Your task to perform on an android device: Show me productivity apps on the Play Store Image 0: 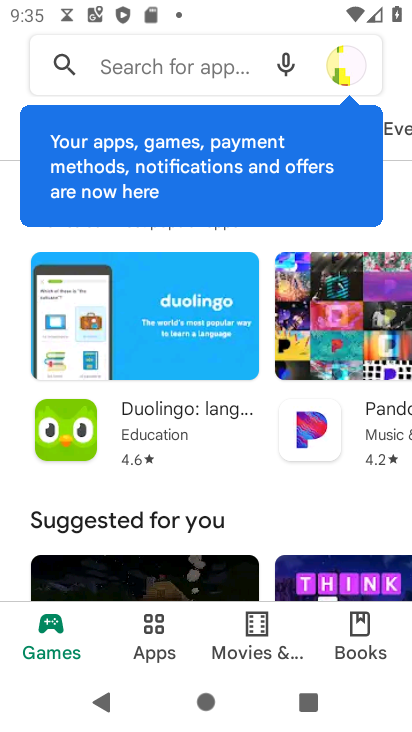
Step 0: press home button
Your task to perform on an android device: Show me productivity apps on the Play Store Image 1: 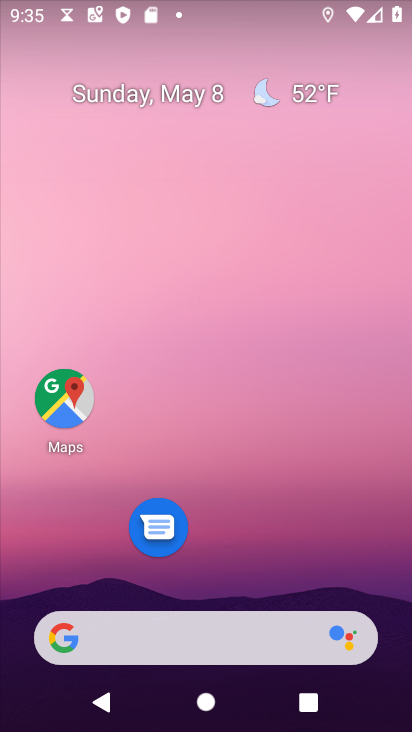
Step 1: drag from (229, 524) to (213, 45)
Your task to perform on an android device: Show me productivity apps on the Play Store Image 2: 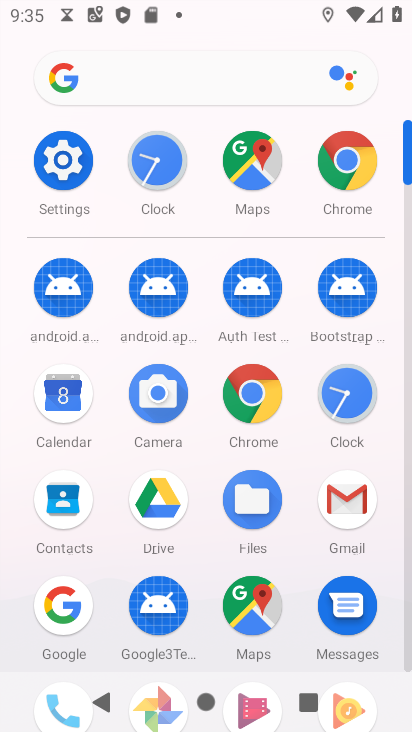
Step 2: drag from (206, 537) to (200, 286)
Your task to perform on an android device: Show me productivity apps on the Play Store Image 3: 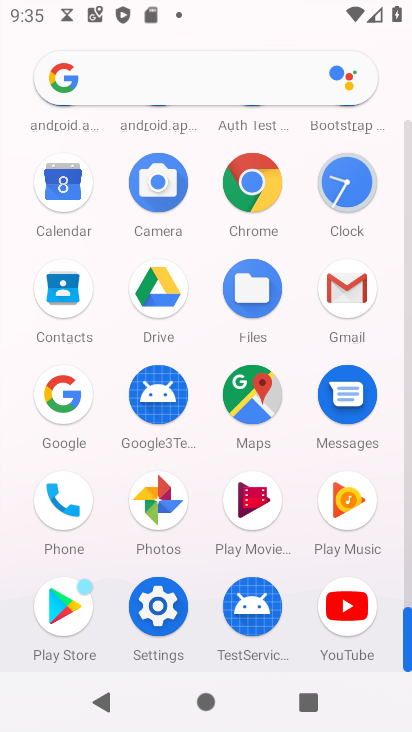
Step 3: click (67, 603)
Your task to perform on an android device: Show me productivity apps on the Play Store Image 4: 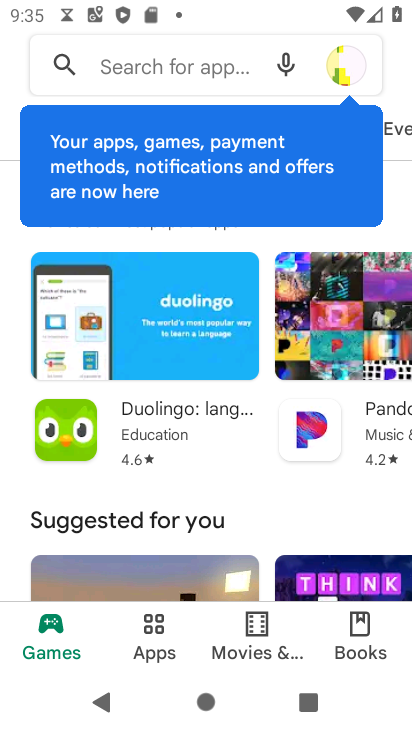
Step 4: click (147, 622)
Your task to perform on an android device: Show me productivity apps on the Play Store Image 5: 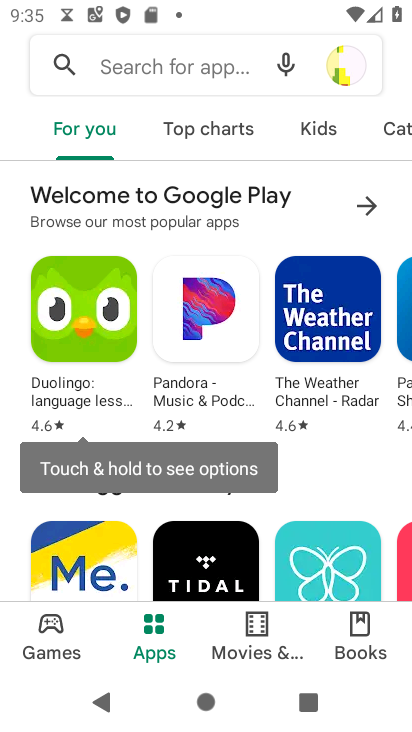
Step 5: drag from (346, 126) to (171, 109)
Your task to perform on an android device: Show me productivity apps on the Play Store Image 6: 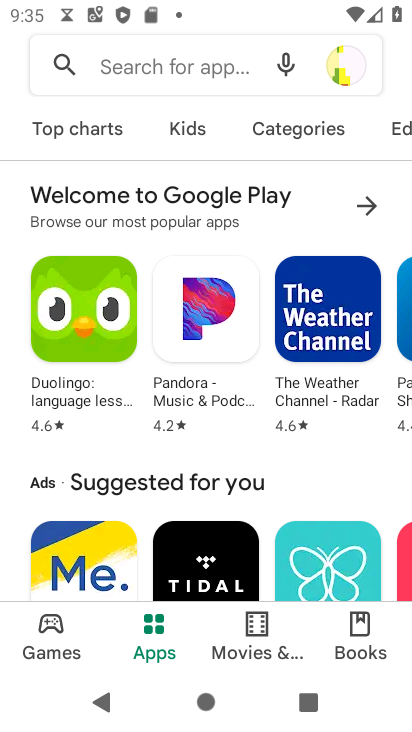
Step 6: click (307, 132)
Your task to perform on an android device: Show me productivity apps on the Play Store Image 7: 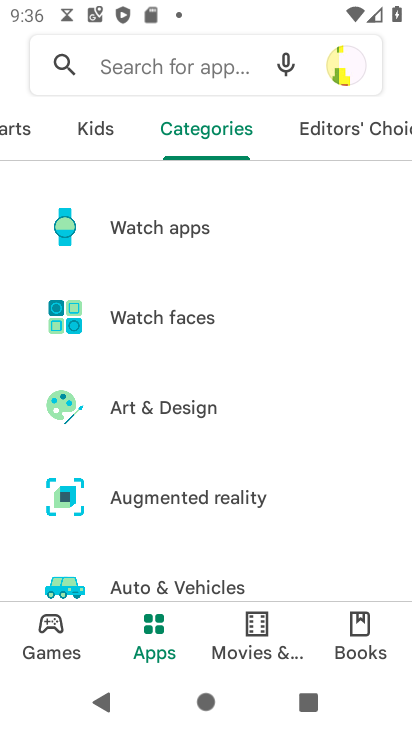
Step 7: drag from (186, 458) to (200, 324)
Your task to perform on an android device: Show me productivity apps on the Play Store Image 8: 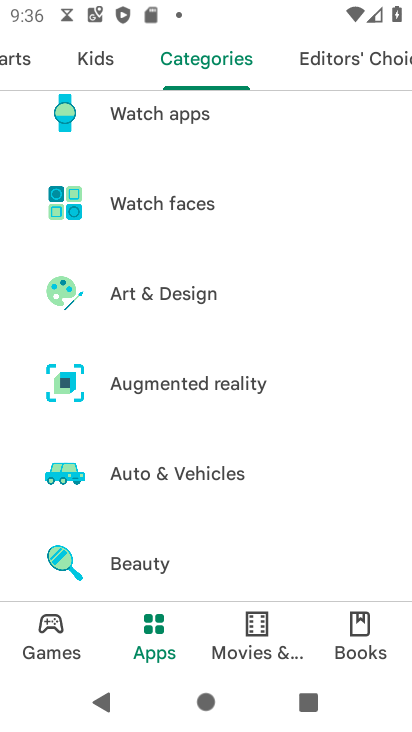
Step 8: drag from (179, 443) to (209, 330)
Your task to perform on an android device: Show me productivity apps on the Play Store Image 9: 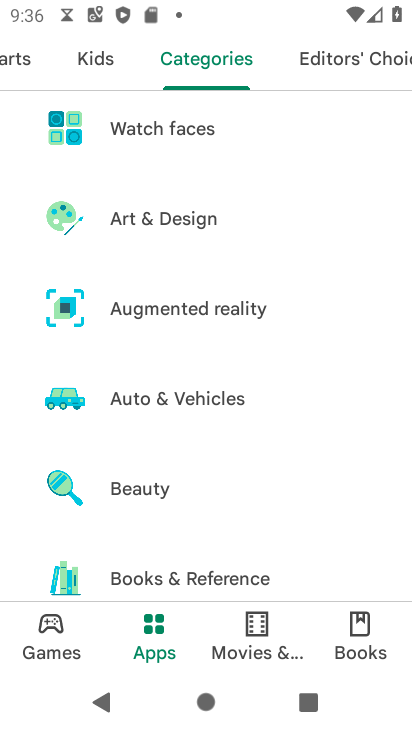
Step 9: drag from (151, 447) to (268, 301)
Your task to perform on an android device: Show me productivity apps on the Play Store Image 10: 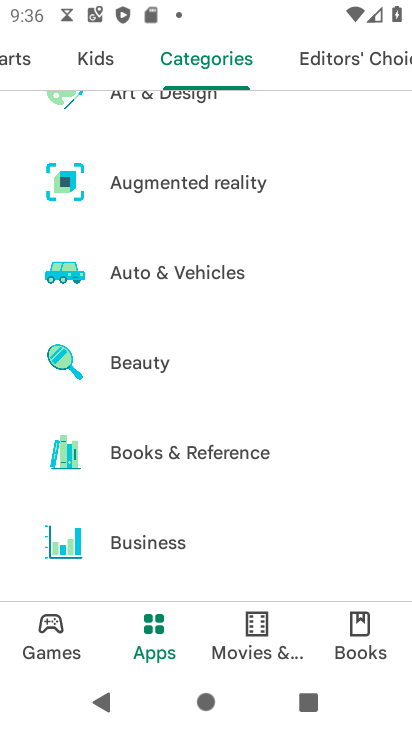
Step 10: drag from (147, 415) to (264, 288)
Your task to perform on an android device: Show me productivity apps on the Play Store Image 11: 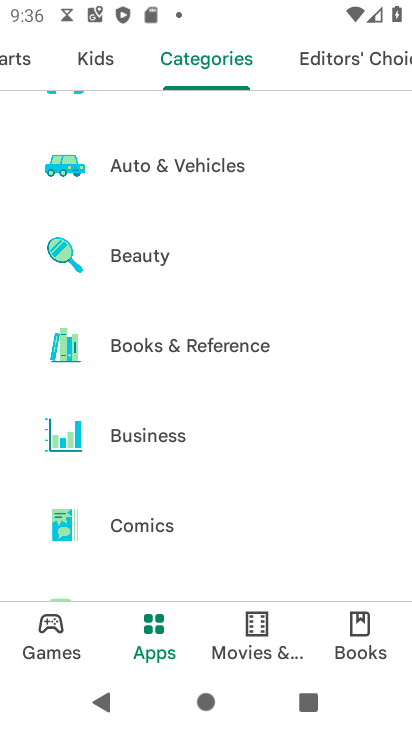
Step 11: drag from (125, 477) to (214, 355)
Your task to perform on an android device: Show me productivity apps on the Play Store Image 12: 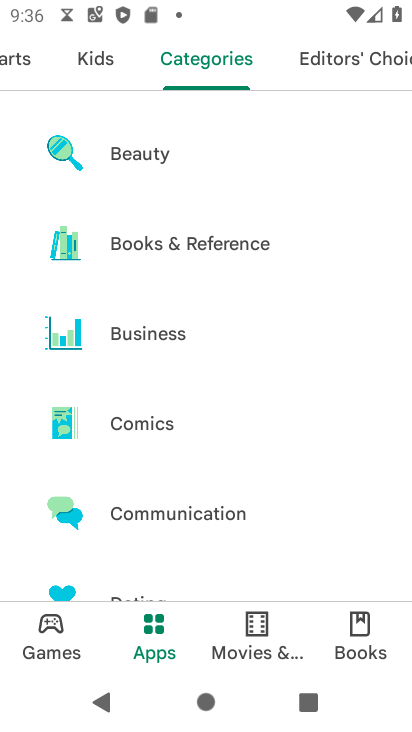
Step 12: drag from (141, 462) to (226, 331)
Your task to perform on an android device: Show me productivity apps on the Play Store Image 13: 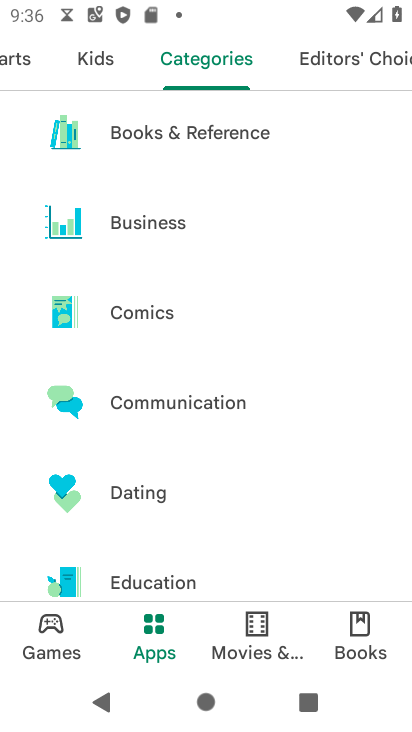
Step 13: drag from (128, 448) to (178, 331)
Your task to perform on an android device: Show me productivity apps on the Play Store Image 14: 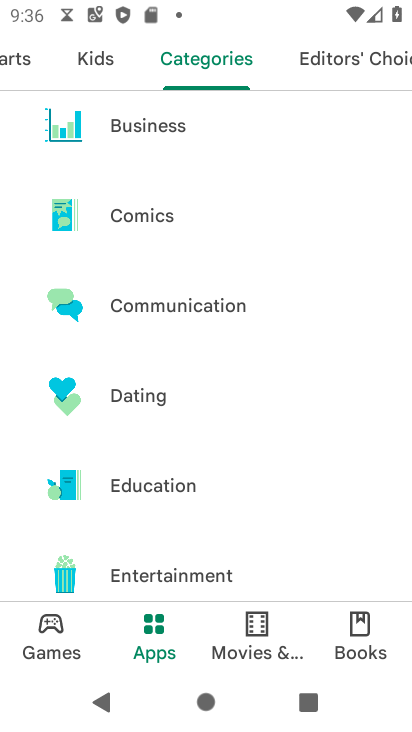
Step 14: drag from (112, 433) to (190, 325)
Your task to perform on an android device: Show me productivity apps on the Play Store Image 15: 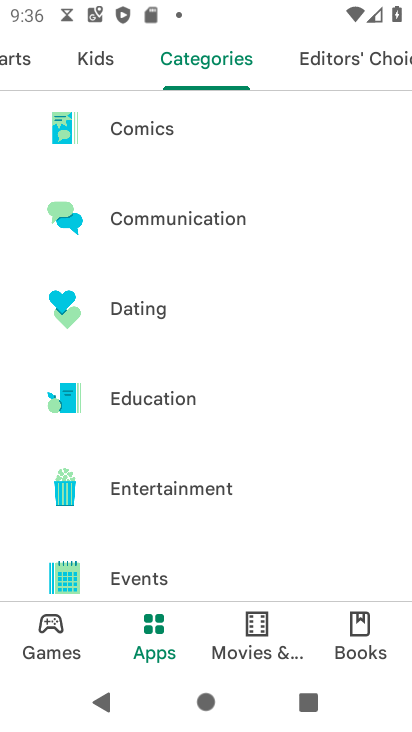
Step 15: drag from (119, 454) to (201, 339)
Your task to perform on an android device: Show me productivity apps on the Play Store Image 16: 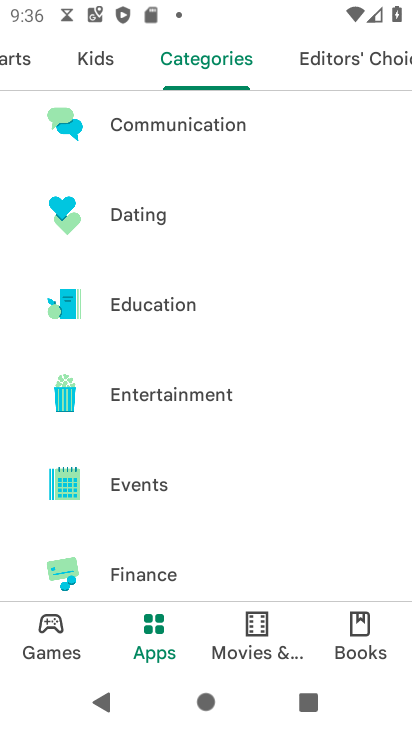
Step 16: drag from (107, 448) to (184, 340)
Your task to perform on an android device: Show me productivity apps on the Play Store Image 17: 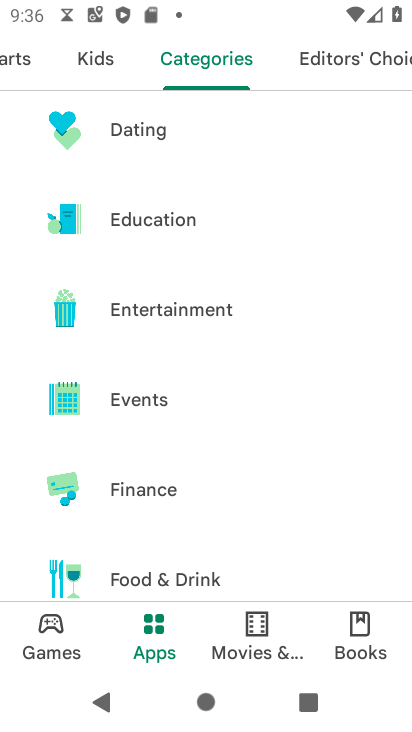
Step 17: drag from (113, 453) to (193, 342)
Your task to perform on an android device: Show me productivity apps on the Play Store Image 18: 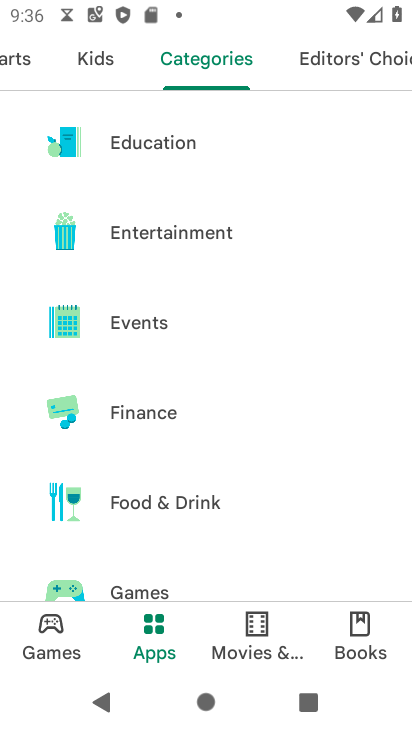
Step 18: drag from (101, 446) to (218, 308)
Your task to perform on an android device: Show me productivity apps on the Play Store Image 19: 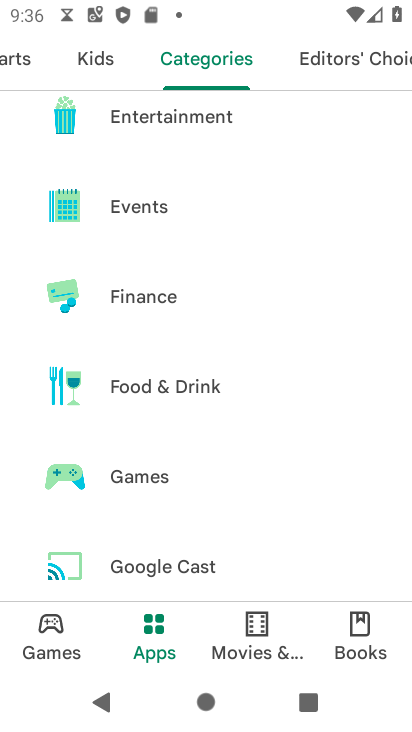
Step 19: drag from (100, 437) to (209, 325)
Your task to perform on an android device: Show me productivity apps on the Play Store Image 20: 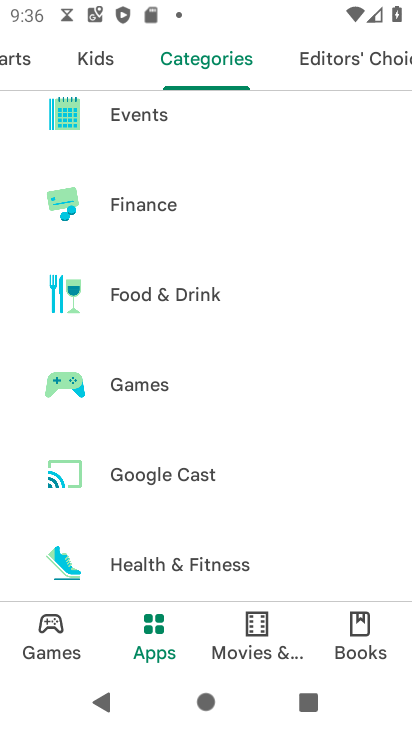
Step 20: drag from (94, 440) to (245, 290)
Your task to perform on an android device: Show me productivity apps on the Play Store Image 21: 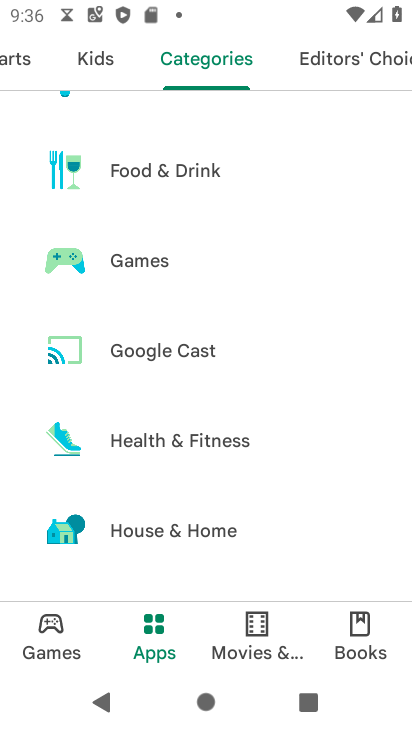
Step 21: drag from (73, 401) to (211, 244)
Your task to perform on an android device: Show me productivity apps on the Play Store Image 22: 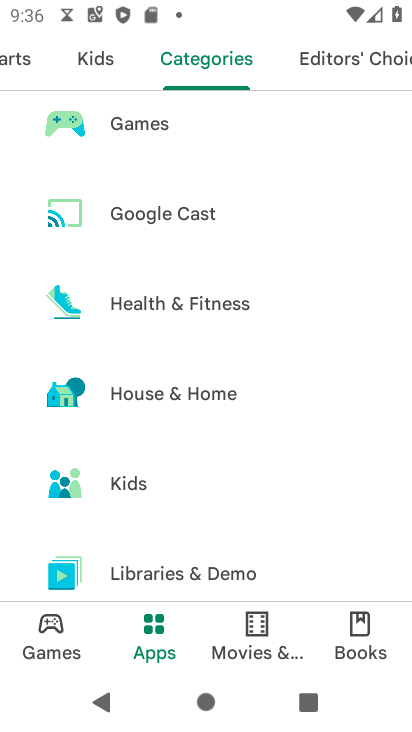
Step 22: drag from (69, 360) to (196, 220)
Your task to perform on an android device: Show me productivity apps on the Play Store Image 23: 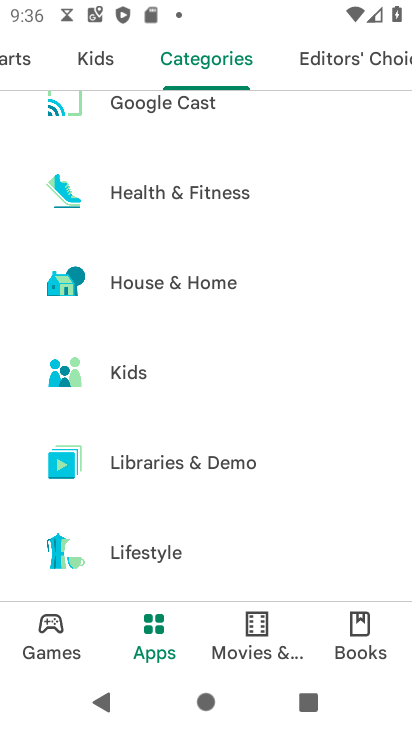
Step 23: drag from (72, 419) to (186, 291)
Your task to perform on an android device: Show me productivity apps on the Play Store Image 24: 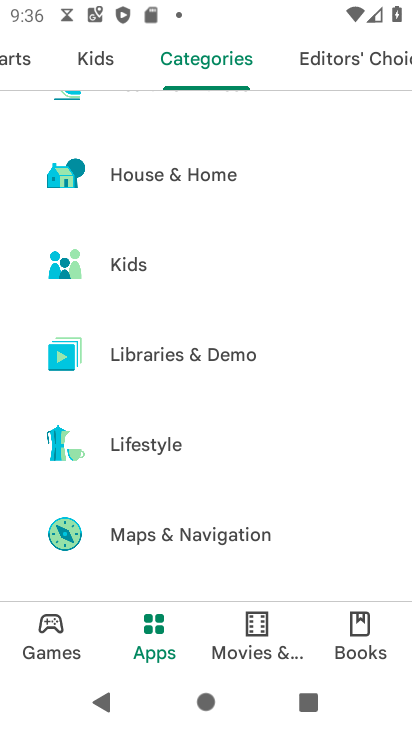
Step 24: drag from (78, 411) to (132, 296)
Your task to perform on an android device: Show me productivity apps on the Play Store Image 25: 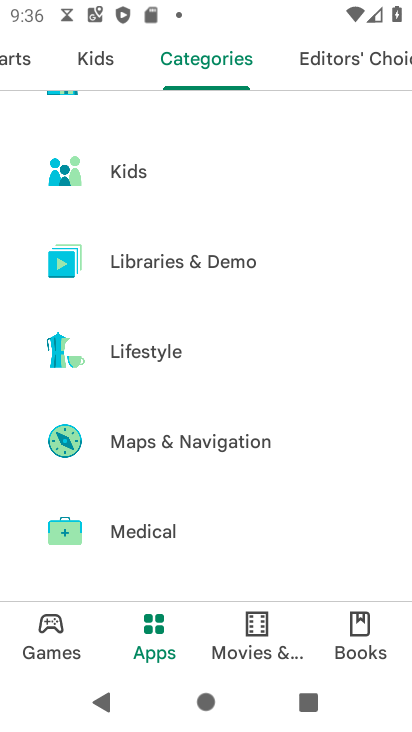
Step 25: drag from (62, 402) to (161, 256)
Your task to perform on an android device: Show me productivity apps on the Play Store Image 26: 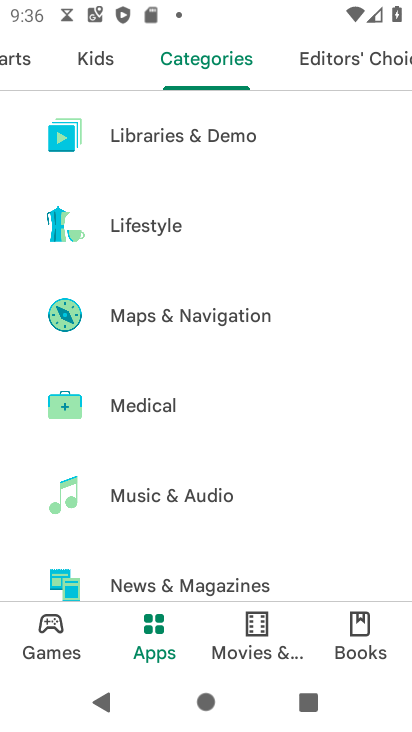
Step 26: drag from (72, 366) to (153, 271)
Your task to perform on an android device: Show me productivity apps on the Play Store Image 27: 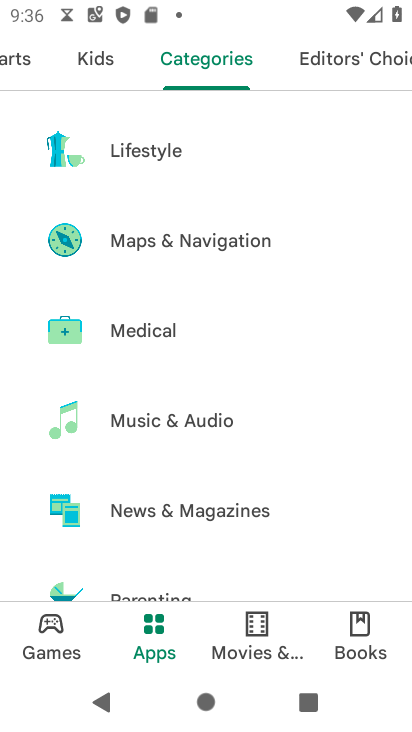
Step 27: drag from (67, 373) to (190, 246)
Your task to perform on an android device: Show me productivity apps on the Play Store Image 28: 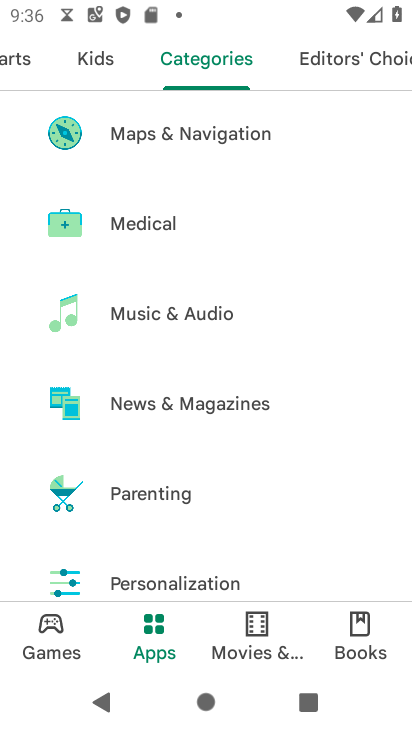
Step 28: drag from (77, 362) to (181, 252)
Your task to perform on an android device: Show me productivity apps on the Play Store Image 29: 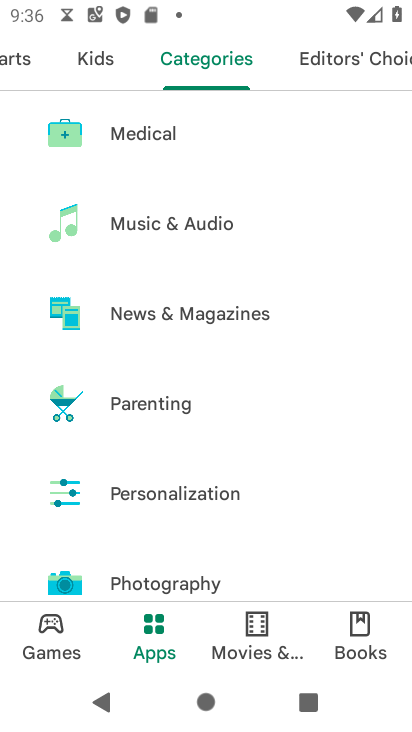
Step 29: drag from (59, 442) to (186, 303)
Your task to perform on an android device: Show me productivity apps on the Play Store Image 30: 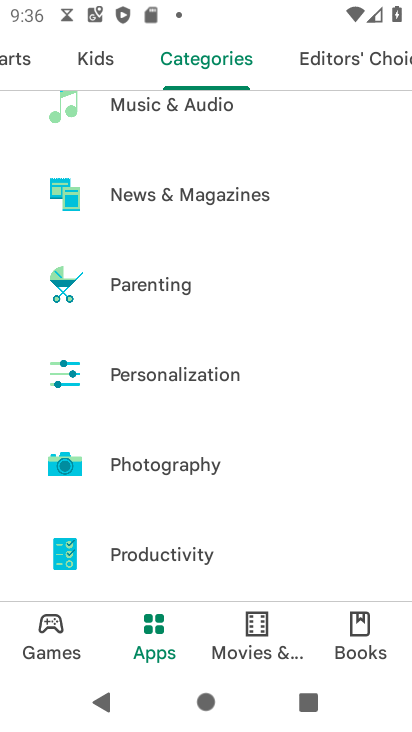
Step 30: drag from (75, 500) to (184, 372)
Your task to perform on an android device: Show me productivity apps on the Play Store Image 31: 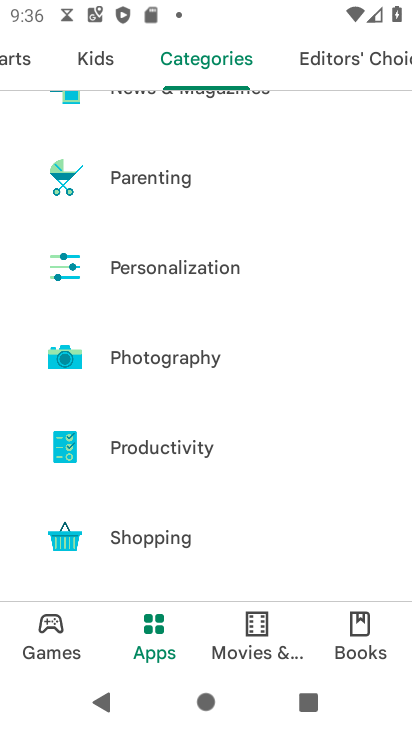
Step 31: click (168, 453)
Your task to perform on an android device: Show me productivity apps on the Play Store Image 32: 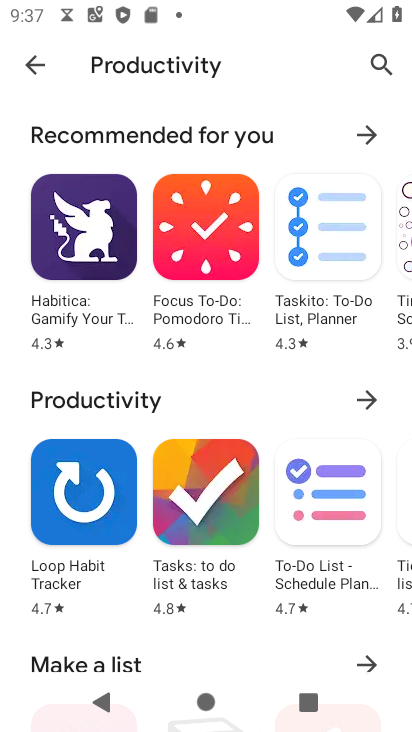
Step 32: task complete